Your task to perform on an android device: manage bookmarks in the chrome app Image 0: 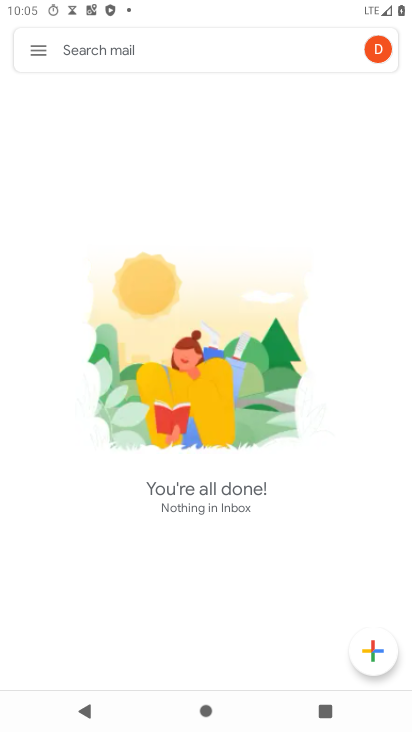
Step 0: press back button
Your task to perform on an android device: manage bookmarks in the chrome app Image 1: 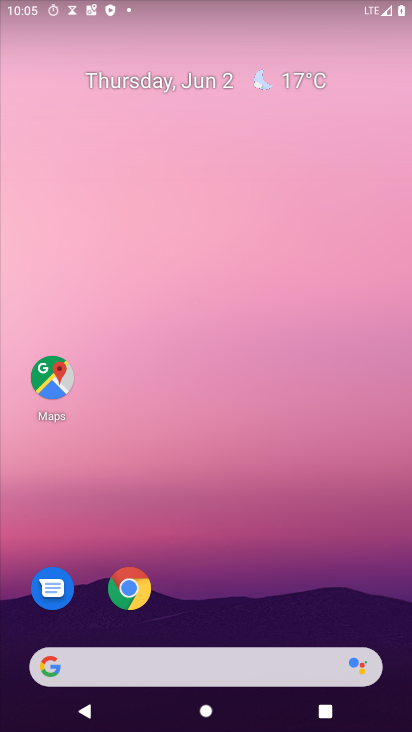
Step 1: click (132, 584)
Your task to perform on an android device: manage bookmarks in the chrome app Image 2: 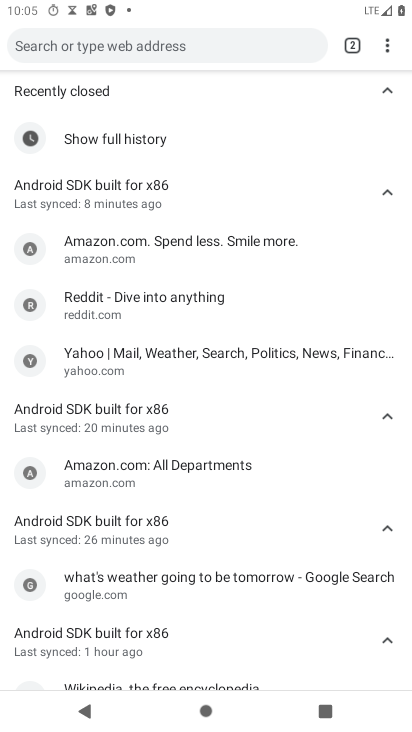
Step 2: drag from (383, 45) to (225, 172)
Your task to perform on an android device: manage bookmarks in the chrome app Image 3: 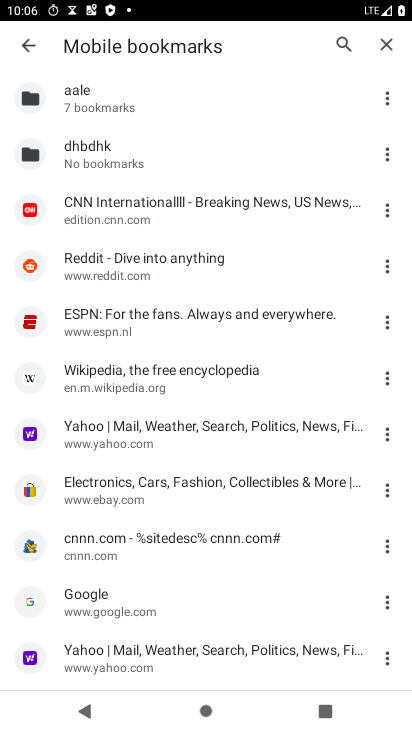
Step 3: click (379, 206)
Your task to perform on an android device: manage bookmarks in the chrome app Image 4: 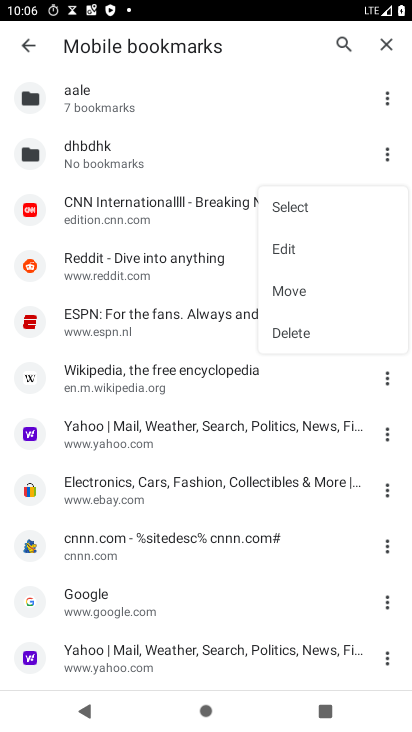
Step 4: click (291, 325)
Your task to perform on an android device: manage bookmarks in the chrome app Image 5: 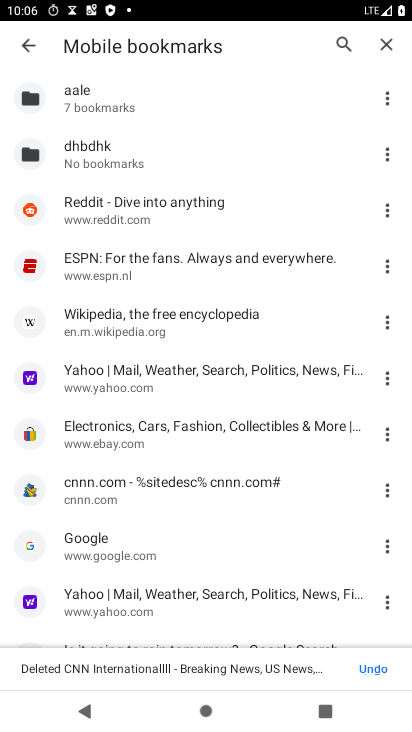
Step 5: task complete